Your task to perform on an android device: Go to Maps Image 0: 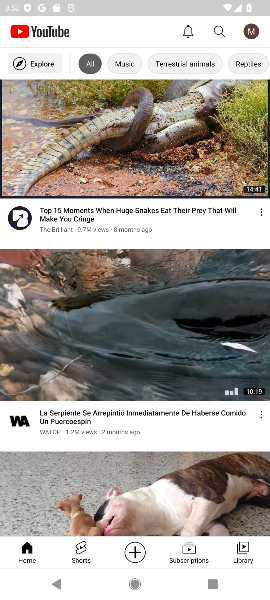
Step 0: press home button
Your task to perform on an android device: Go to Maps Image 1: 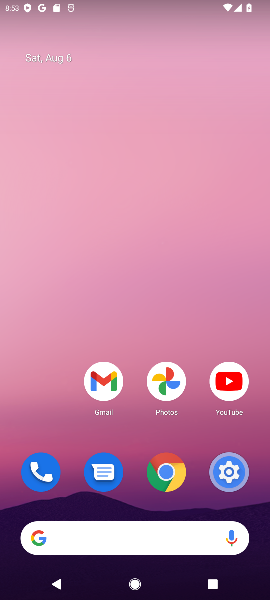
Step 1: drag from (253, 472) to (200, 112)
Your task to perform on an android device: Go to Maps Image 2: 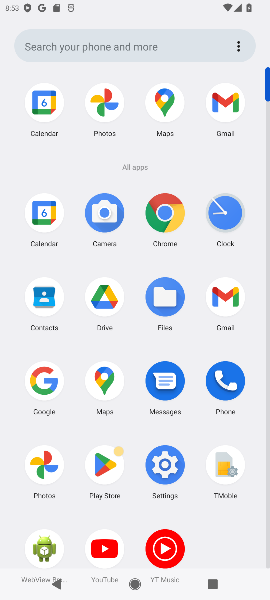
Step 2: click (110, 376)
Your task to perform on an android device: Go to Maps Image 3: 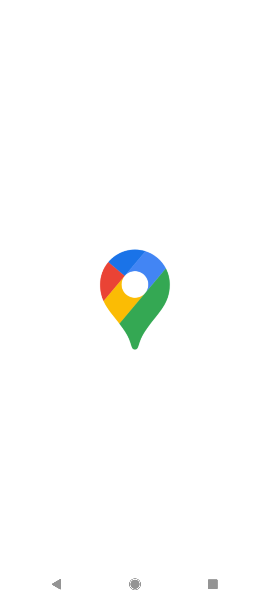
Step 3: task complete